Your task to perform on an android device: turn off sleep mode Image 0: 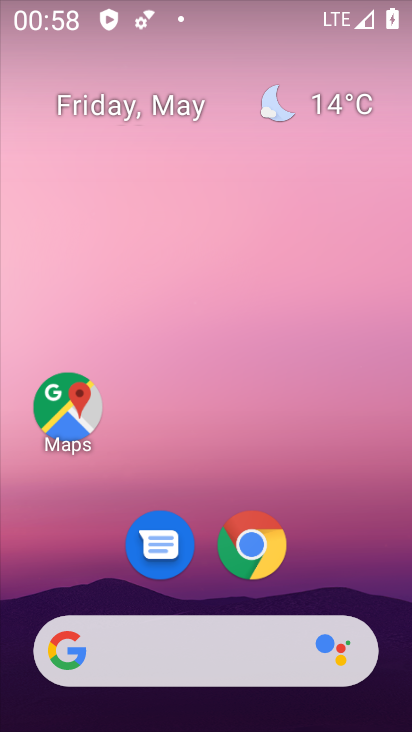
Step 0: drag from (206, 592) to (215, 106)
Your task to perform on an android device: turn off sleep mode Image 1: 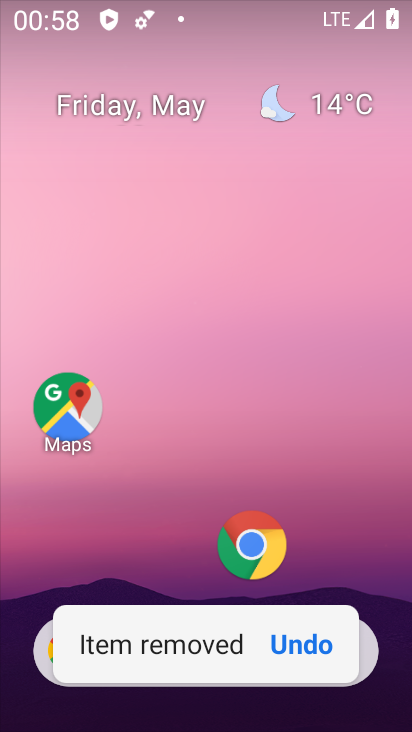
Step 1: click (278, 646)
Your task to perform on an android device: turn off sleep mode Image 2: 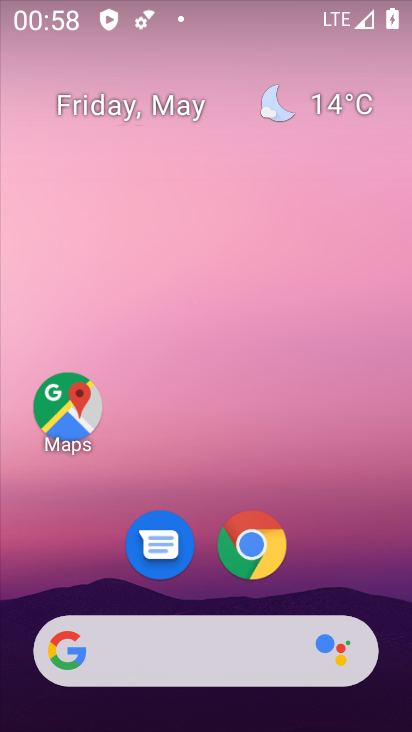
Step 2: task complete